Your task to perform on an android device: toggle notification dots Image 0: 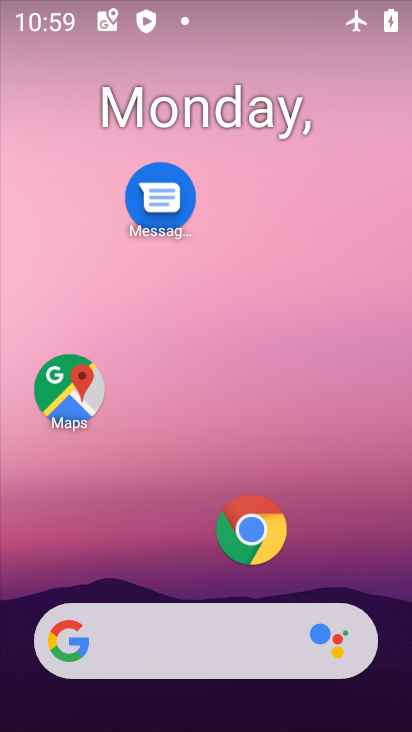
Step 0: drag from (201, 532) to (333, 73)
Your task to perform on an android device: toggle notification dots Image 1: 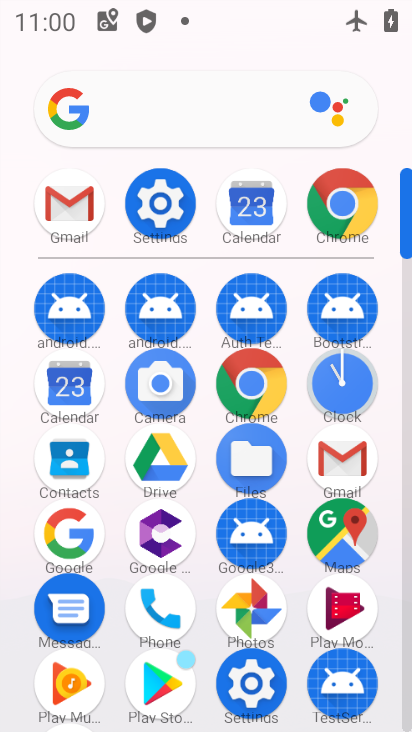
Step 1: click (257, 691)
Your task to perform on an android device: toggle notification dots Image 2: 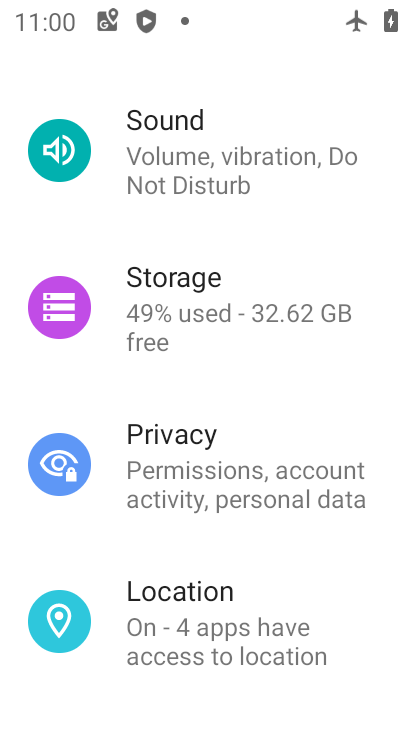
Step 2: drag from (240, 268) to (216, 661)
Your task to perform on an android device: toggle notification dots Image 3: 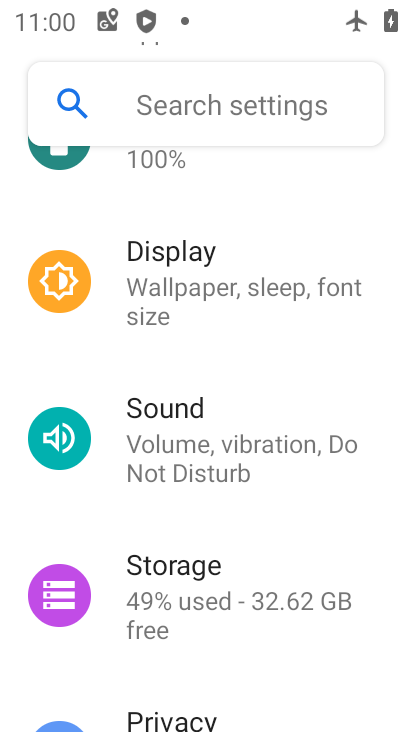
Step 3: drag from (231, 218) to (243, 713)
Your task to perform on an android device: toggle notification dots Image 4: 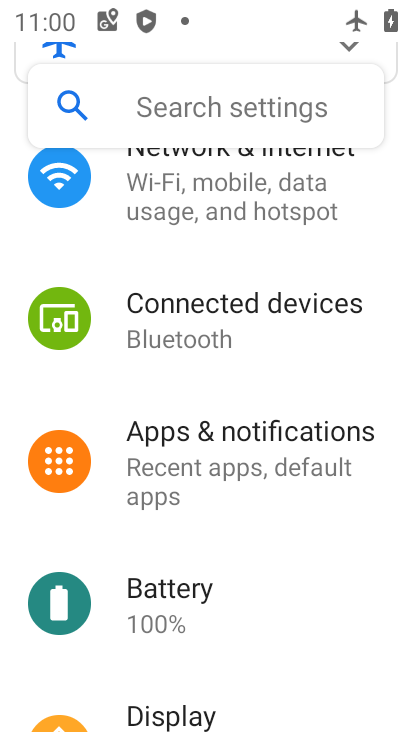
Step 4: click (218, 480)
Your task to perform on an android device: toggle notification dots Image 5: 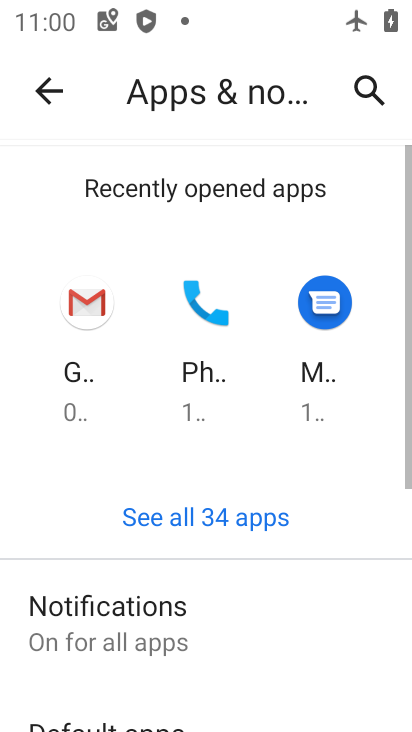
Step 5: click (210, 632)
Your task to perform on an android device: toggle notification dots Image 6: 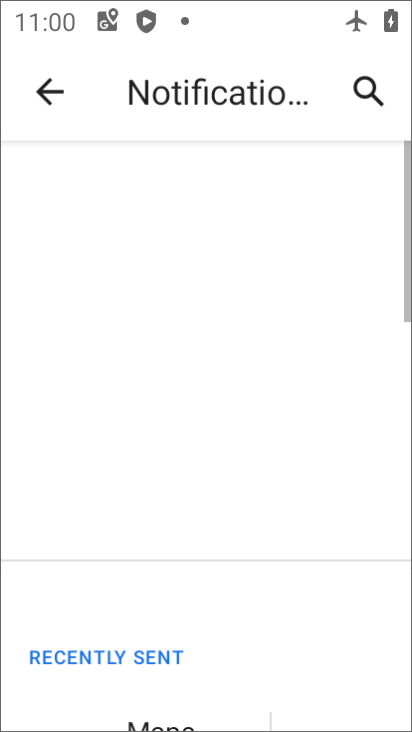
Step 6: drag from (209, 624) to (224, 131)
Your task to perform on an android device: toggle notification dots Image 7: 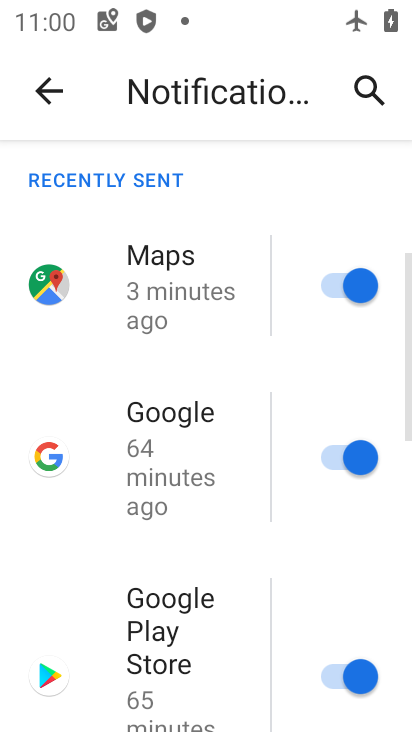
Step 7: drag from (216, 564) to (253, 120)
Your task to perform on an android device: toggle notification dots Image 8: 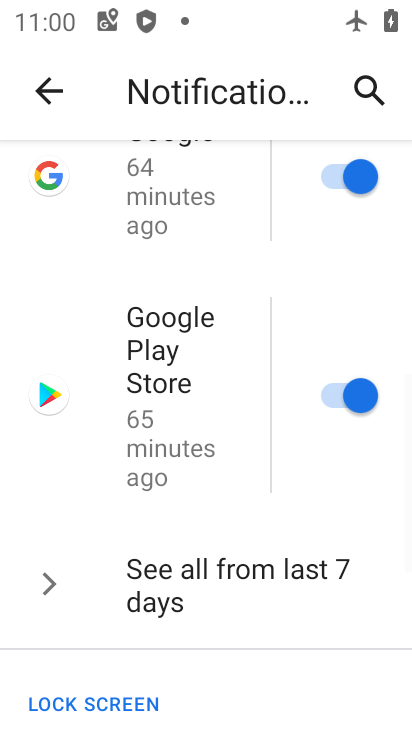
Step 8: drag from (202, 644) to (198, 203)
Your task to perform on an android device: toggle notification dots Image 9: 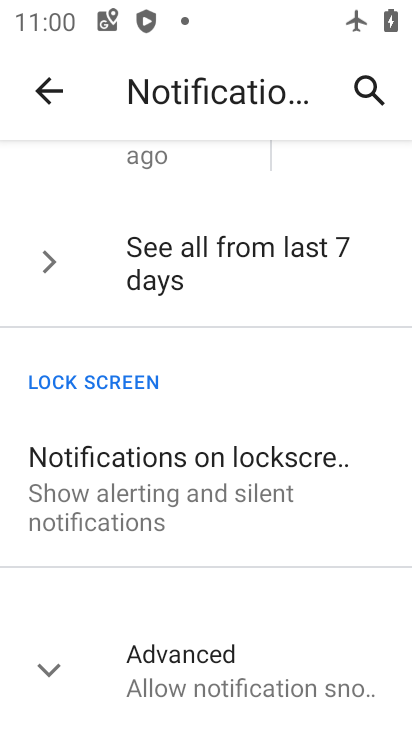
Step 9: click (187, 654)
Your task to perform on an android device: toggle notification dots Image 10: 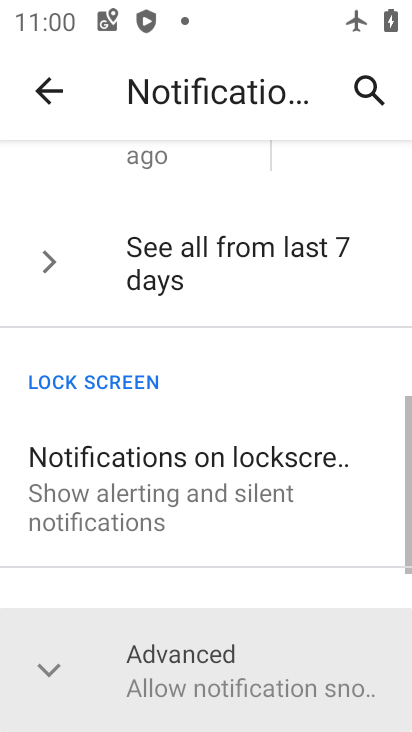
Step 10: drag from (176, 595) to (165, 210)
Your task to perform on an android device: toggle notification dots Image 11: 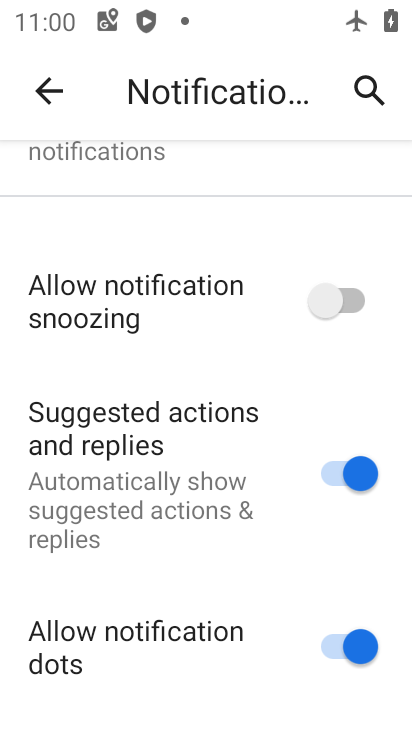
Step 11: click (352, 658)
Your task to perform on an android device: toggle notification dots Image 12: 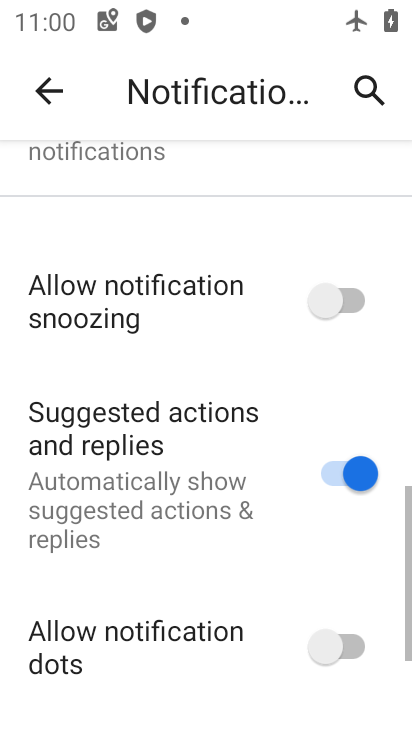
Step 12: task complete